Your task to perform on an android device: add a contact Image 0: 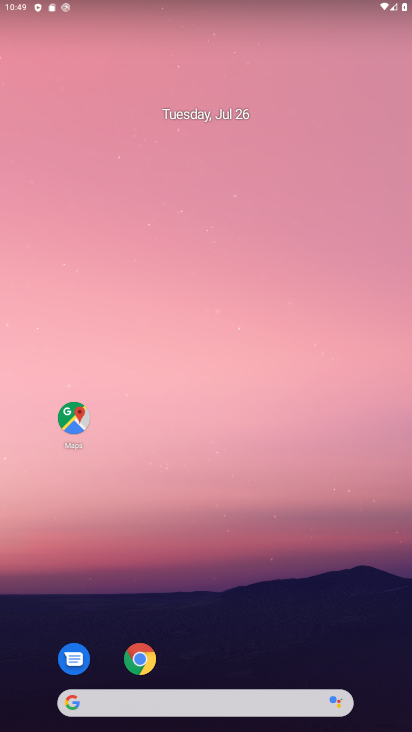
Step 0: drag from (142, 709) to (214, 159)
Your task to perform on an android device: add a contact Image 1: 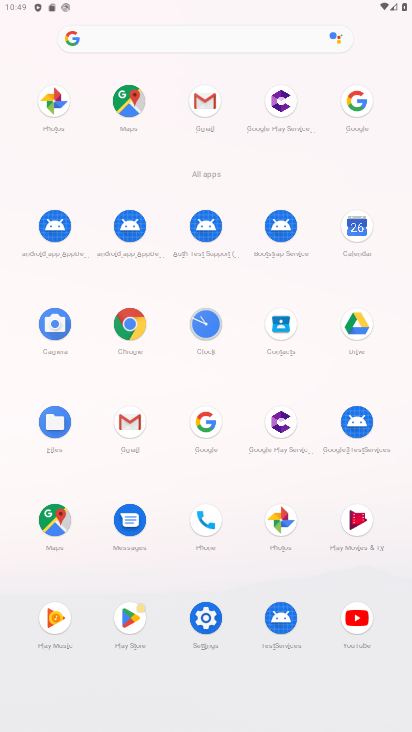
Step 1: click (280, 324)
Your task to perform on an android device: add a contact Image 2: 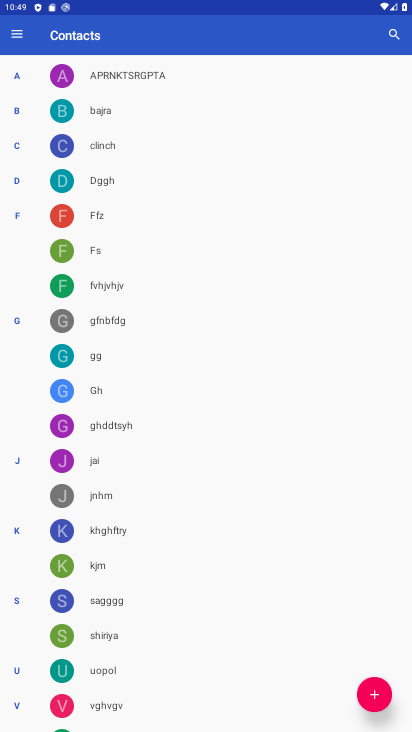
Step 2: click (372, 695)
Your task to perform on an android device: add a contact Image 3: 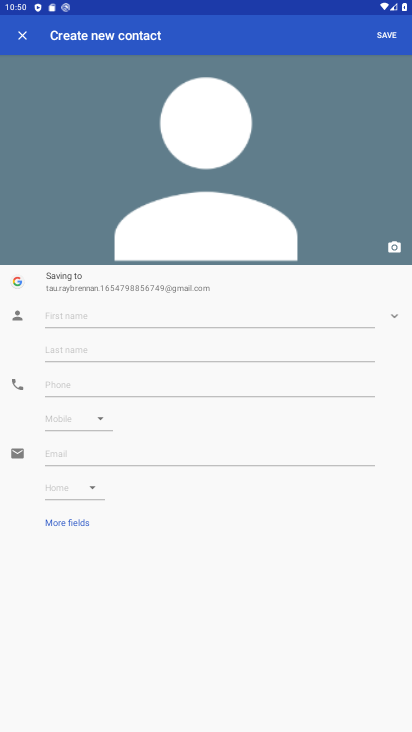
Step 3: click (246, 308)
Your task to perform on an android device: add a contact Image 4: 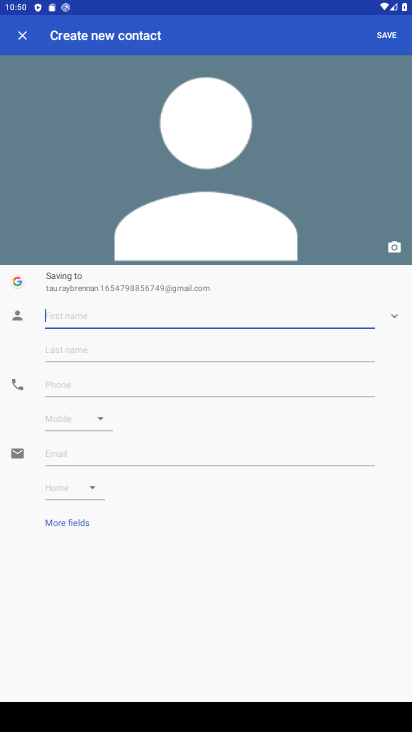
Step 4: type "Banke"
Your task to perform on an android device: add a contact Image 5: 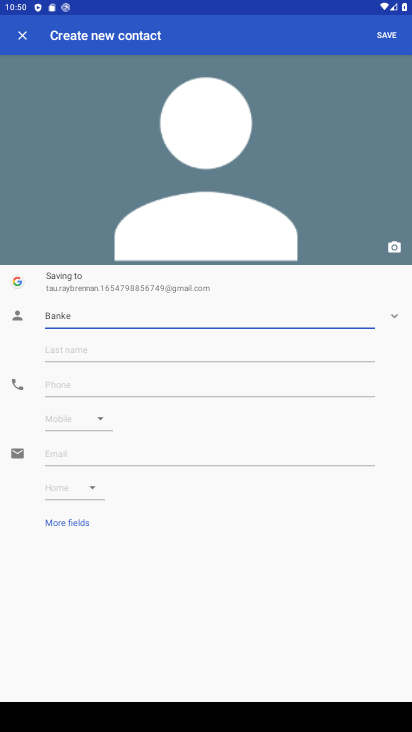
Step 5: click (211, 351)
Your task to perform on an android device: add a contact Image 6: 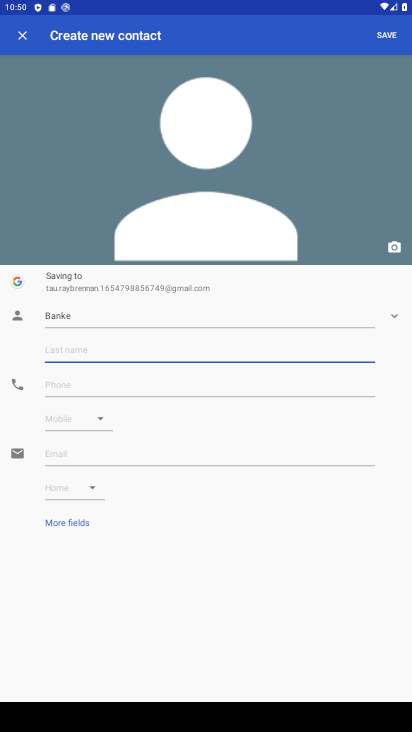
Step 6: type "Bihari"
Your task to perform on an android device: add a contact Image 7: 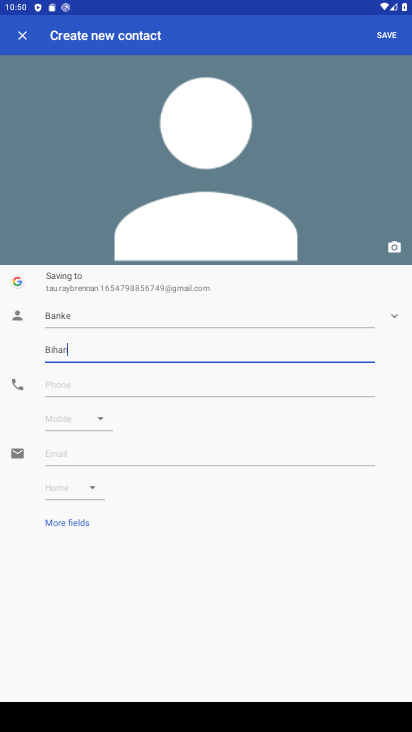
Step 7: click (107, 386)
Your task to perform on an android device: add a contact Image 8: 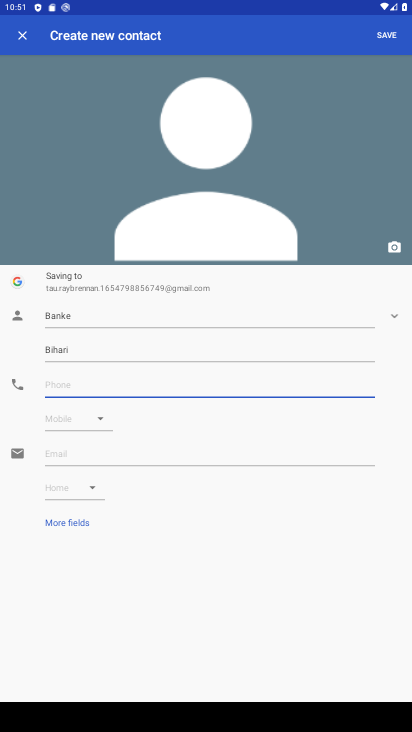
Step 8: type "09876543218"
Your task to perform on an android device: add a contact Image 9: 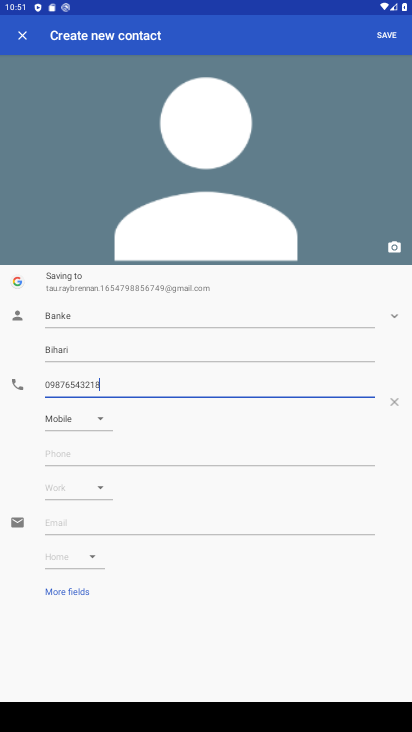
Step 9: click (389, 33)
Your task to perform on an android device: add a contact Image 10: 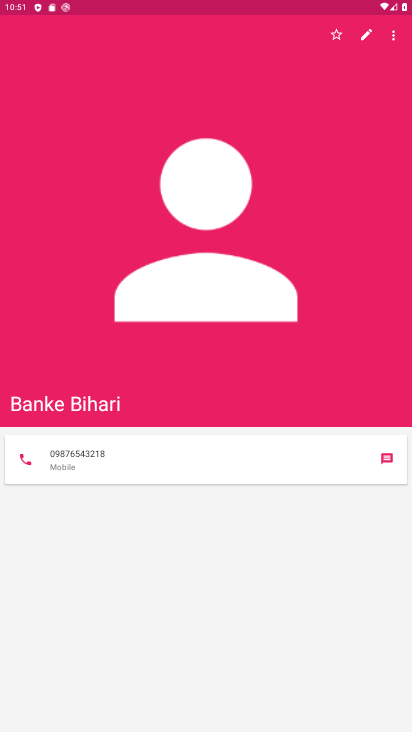
Step 10: task complete